Your task to perform on an android device: Open calendar and show me the second week of next month Image 0: 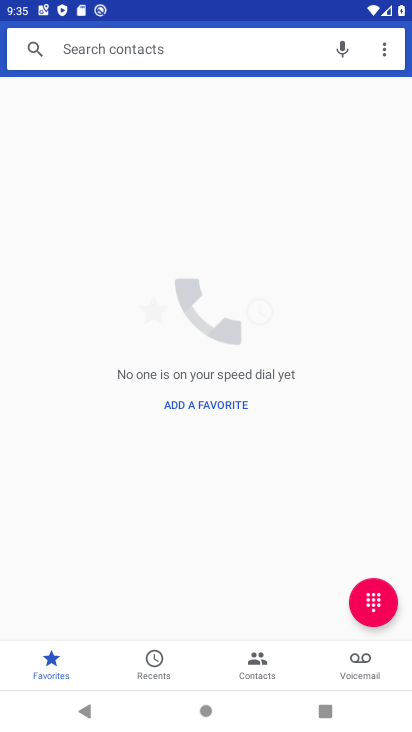
Step 0: press home button
Your task to perform on an android device: Open calendar and show me the second week of next month Image 1: 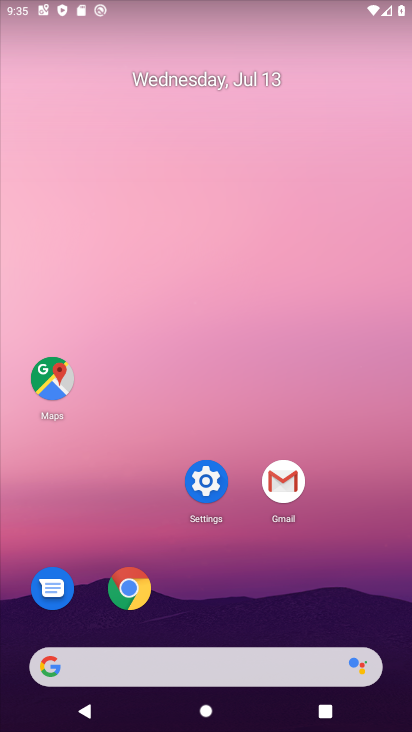
Step 1: drag from (406, 691) to (382, 48)
Your task to perform on an android device: Open calendar and show me the second week of next month Image 2: 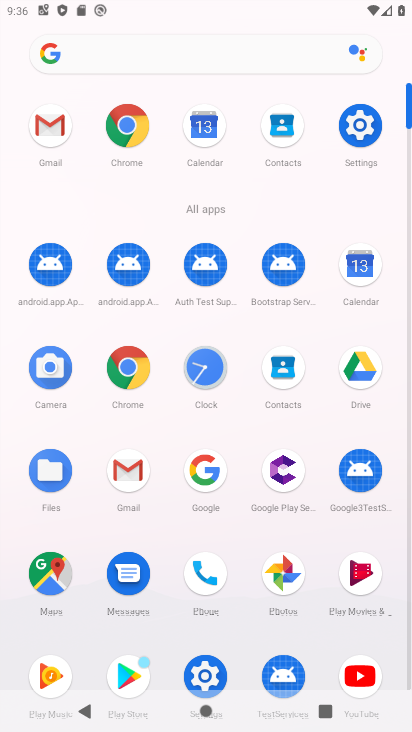
Step 2: click (350, 267)
Your task to perform on an android device: Open calendar and show me the second week of next month Image 3: 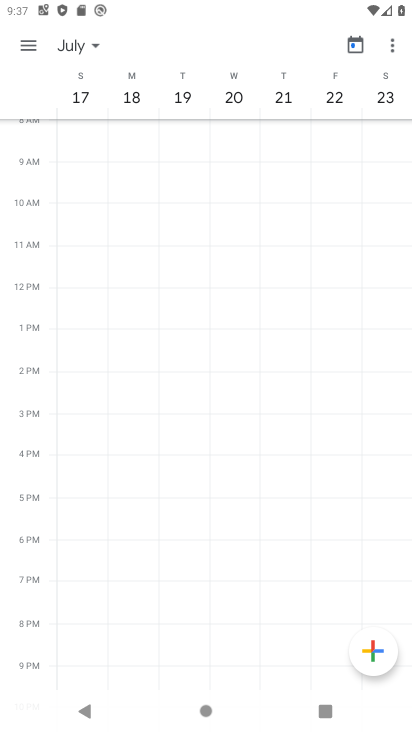
Step 3: click (91, 43)
Your task to perform on an android device: Open calendar and show me the second week of next month Image 4: 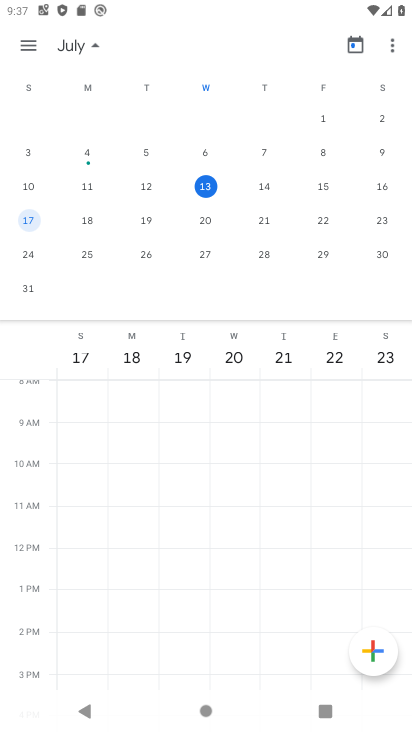
Step 4: drag from (392, 211) to (92, 196)
Your task to perform on an android device: Open calendar and show me the second week of next month Image 5: 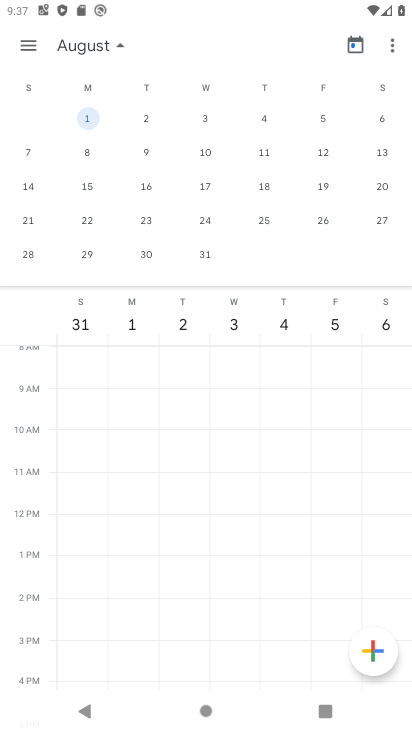
Step 5: click (260, 149)
Your task to perform on an android device: Open calendar and show me the second week of next month Image 6: 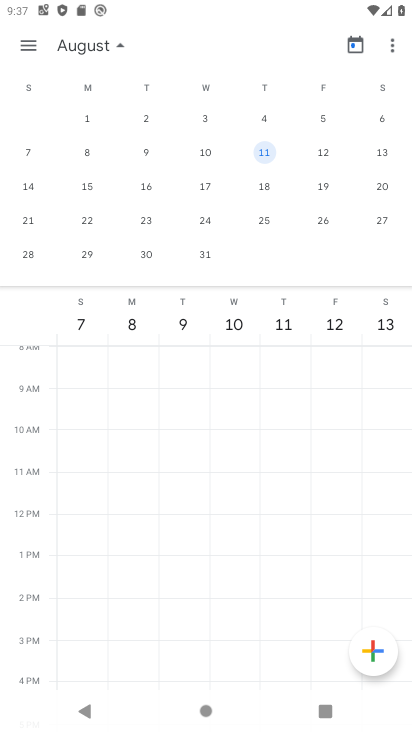
Step 6: click (26, 44)
Your task to perform on an android device: Open calendar and show me the second week of next month Image 7: 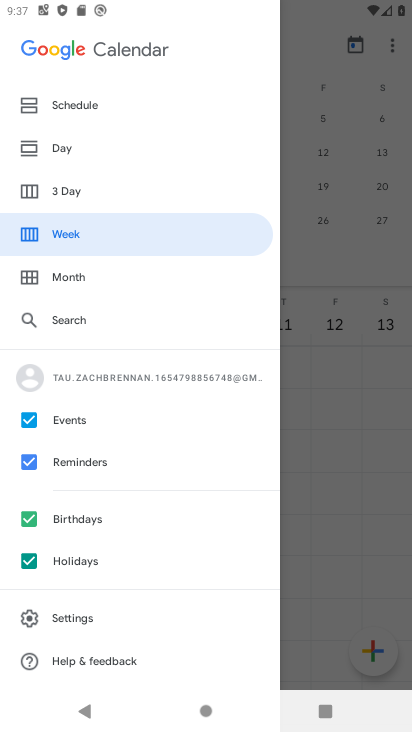
Step 7: click (97, 235)
Your task to perform on an android device: Open calendar and show me the second week of next month Image 8: 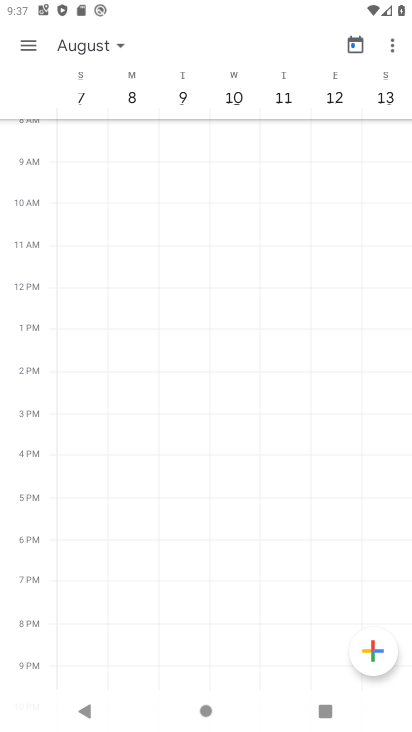
Step 8: task complete